Your task to perform on an android device: Do I have any events this weekend? Image 0: 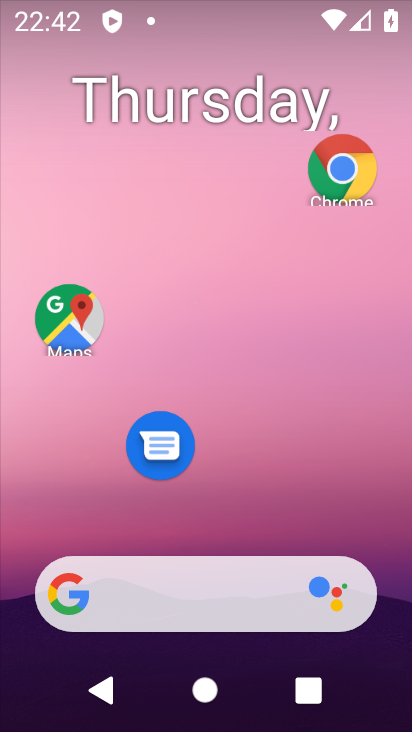
Step 0: drag from (246, 537) to (227, 249)
Your task to perform on an android device: Do I have any events this weekend? Image 1: 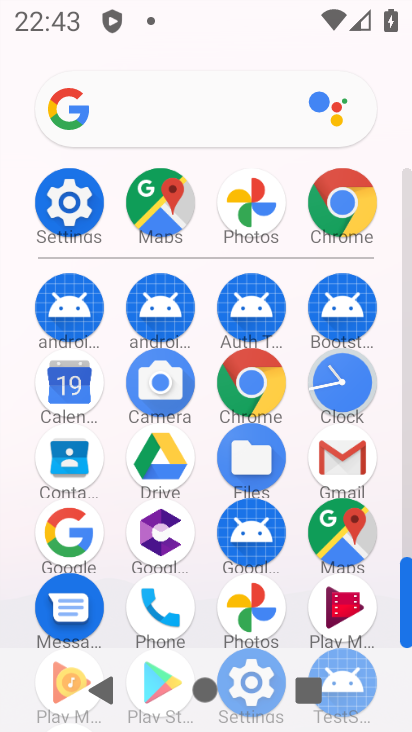
Step 1: click (81, 377)
Your task to perform on an android device: Do I have any events this weekend? Image 2: 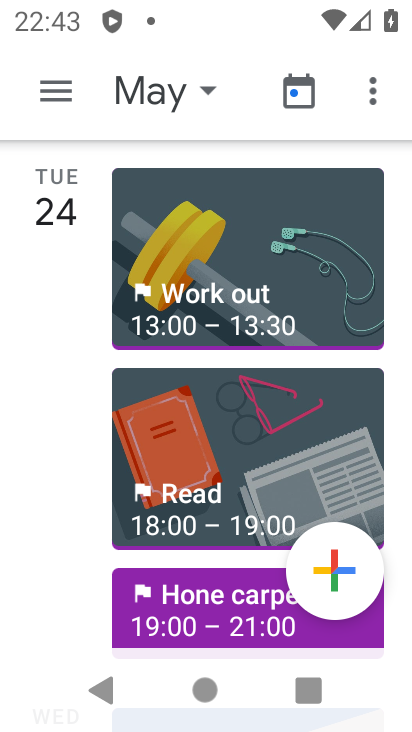
Step 2: drag from (199, 571) to (206, 276)
Your task to perform on an android device: Do I have any events this weekend? Image 3: 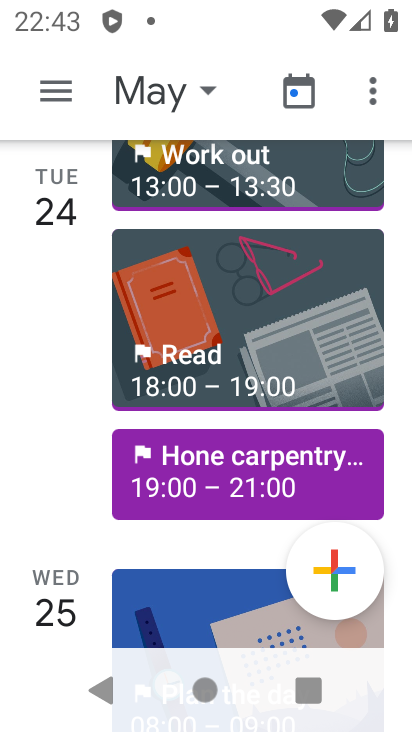
Step 3: click (152, 85)
Your task to perform on an android device: Do I have any events this weekend? Image 4: 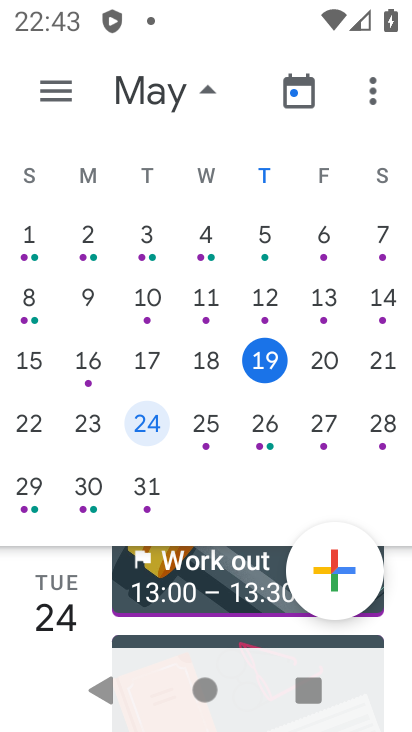
Step 4: click (84, 355)
Your task to perform on an android device: Do I have any events this weekend? Image 5: 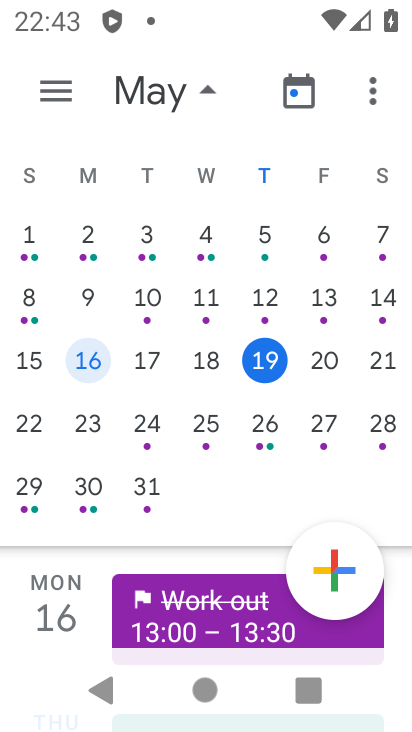
Step 5: task complete